Your task to perform on an android device: open app "Pandora - Music & Podcasts" Image 0: 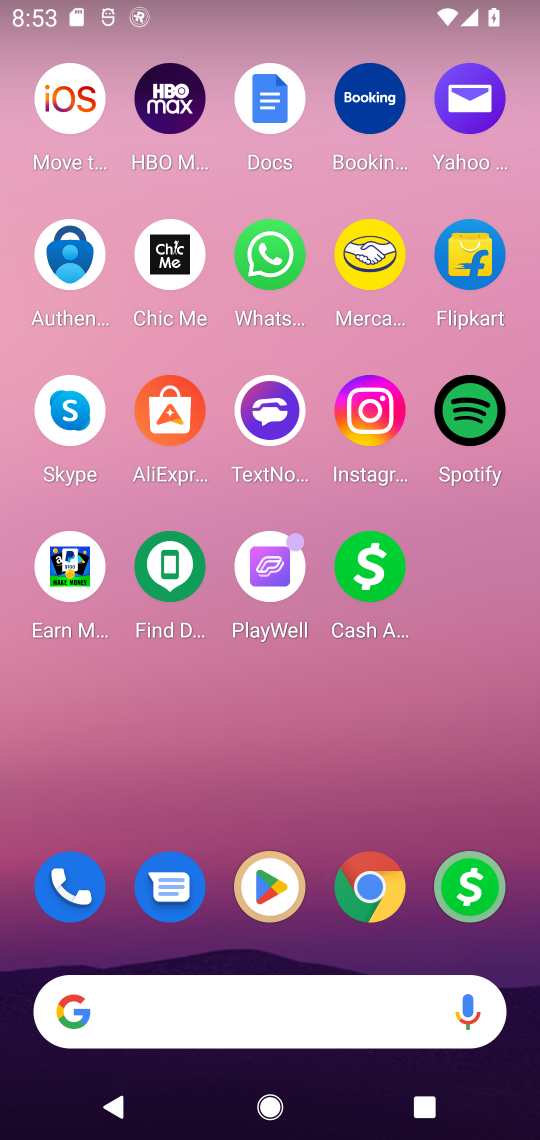
Step 0: click (299, 878)
Your task to perform on an android device: open app "Pandora - Music & Podcasts" Image 1: 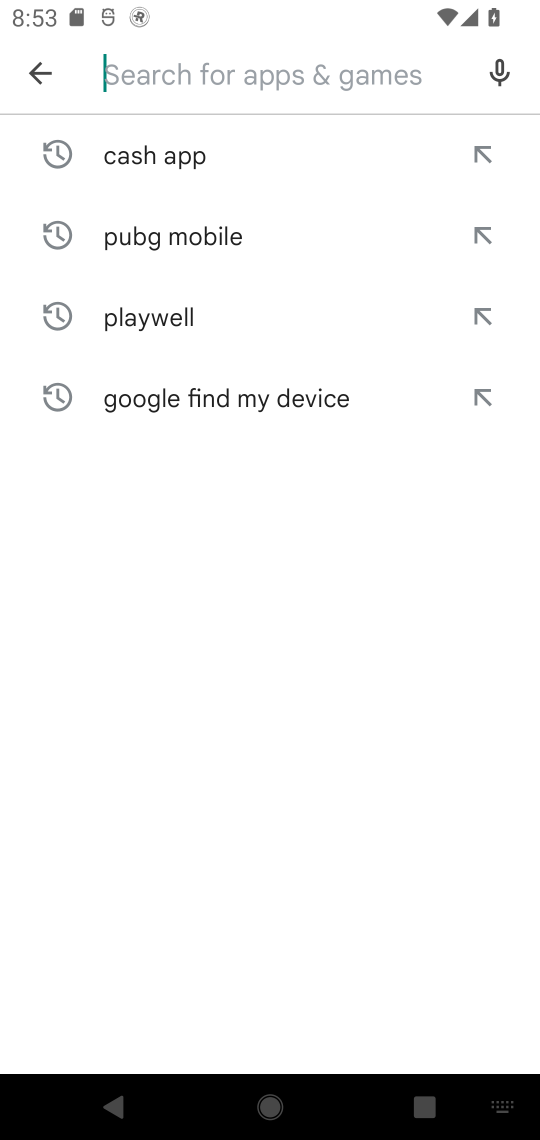
Step 1: type "pandora"
Your task to perform on an android device: open app "Pandora - Music & Podcasts" Image 2: 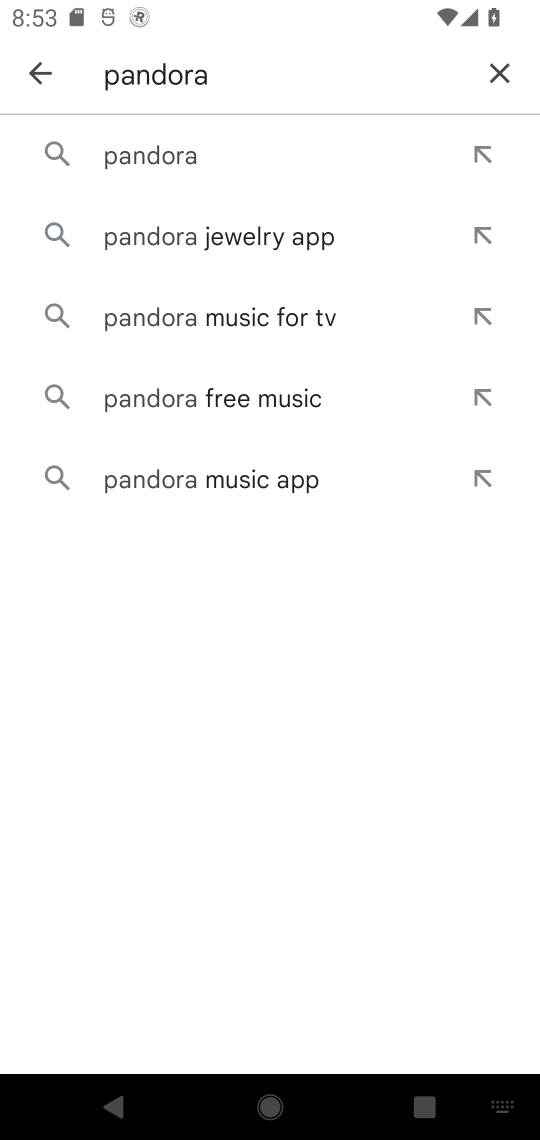
Step 2: click (217, 175)
Your task to perform on an android device: open app "Pandora - Music & Podcasts" Image 3: 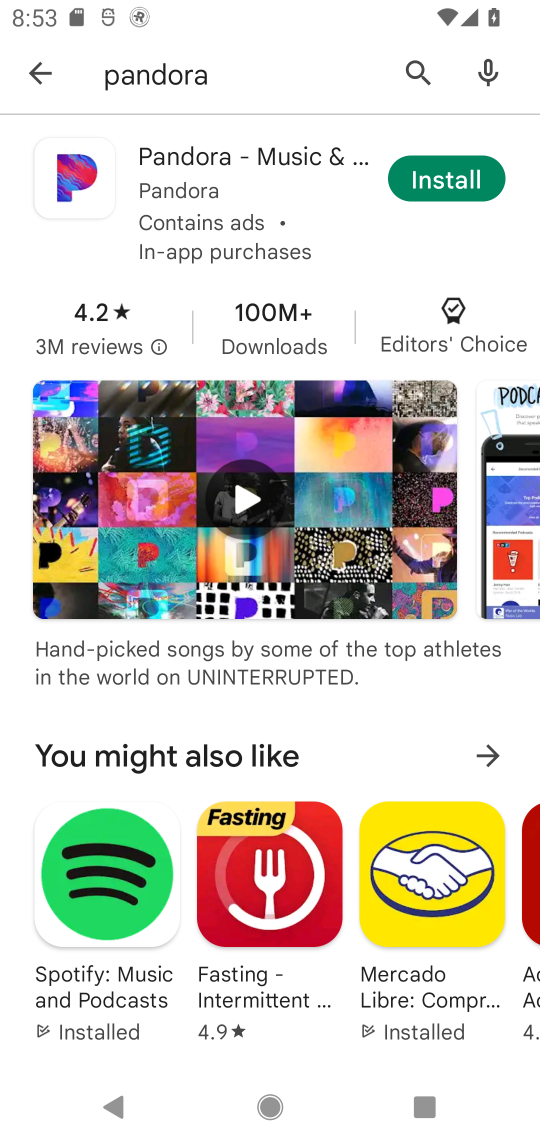
Step 3: click (453, 192)
Your task to perform on an android device: open app "Pandora - Music & Podcasts" Image 4: 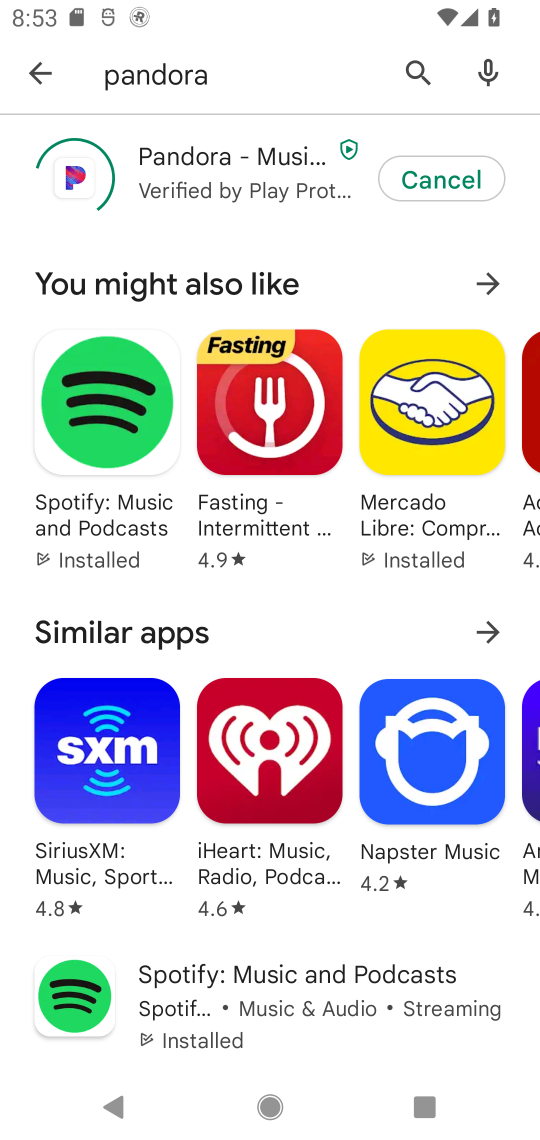
Step 4: task complete